Your task to perform on an android device: Check the news Image 0: 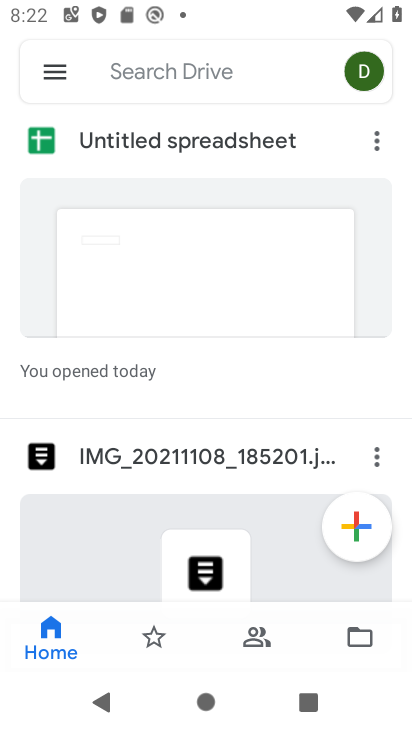
Step 0: press home button
Your task to perform on an android device: Check the news Image 1: 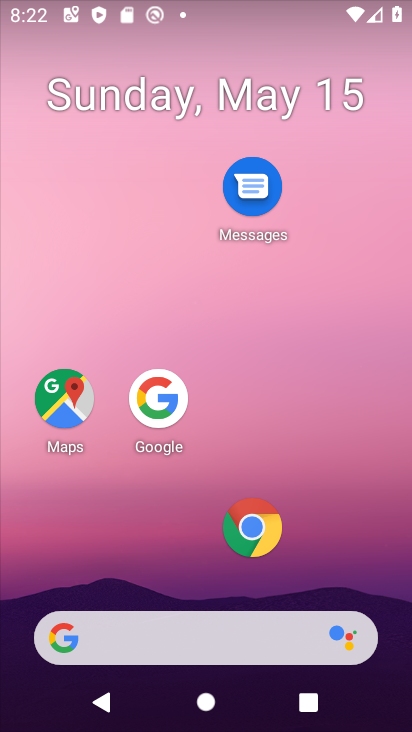
Step 1: click (69, 643)
Your task to perform on an android device: Check the news Image 2: 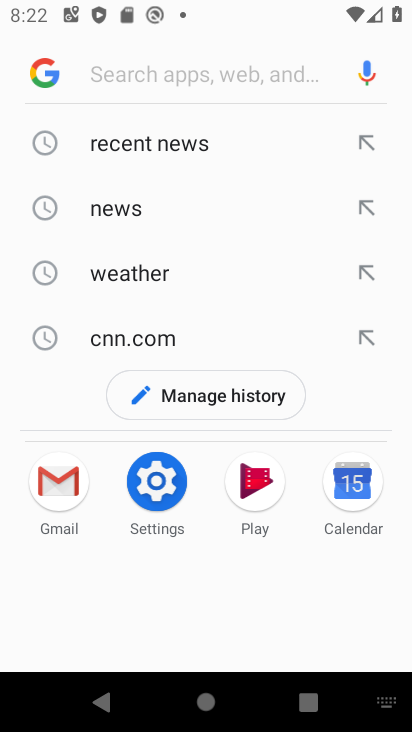
Step 2: click (131, 215)
Your task to perform on an android device: Check the news Image 3: 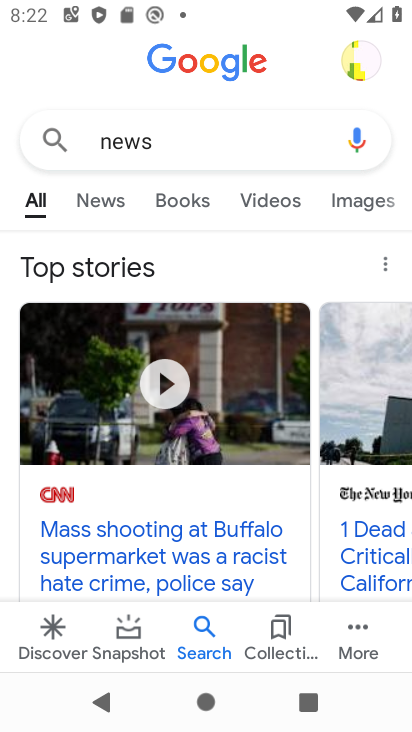
Step 3: click (103, 204)
Your task to perform on an android device: Check the news Image 4: 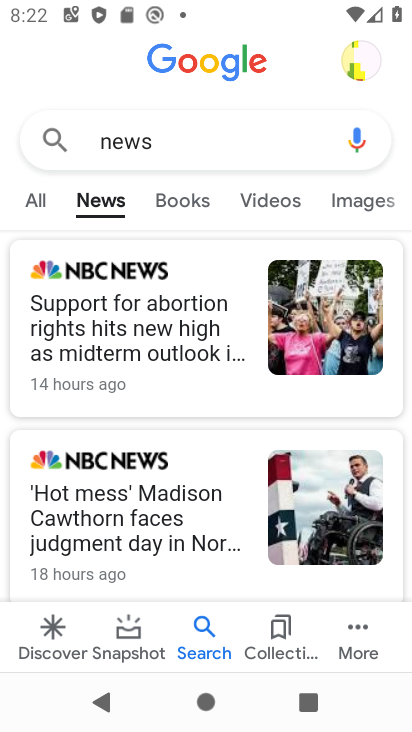
Step 4: task complete